Your task to perform on an android device: Show the shopping cart on walmart.com. Add usb-a to the cart on walmart.com, then select checkout. Image 0: 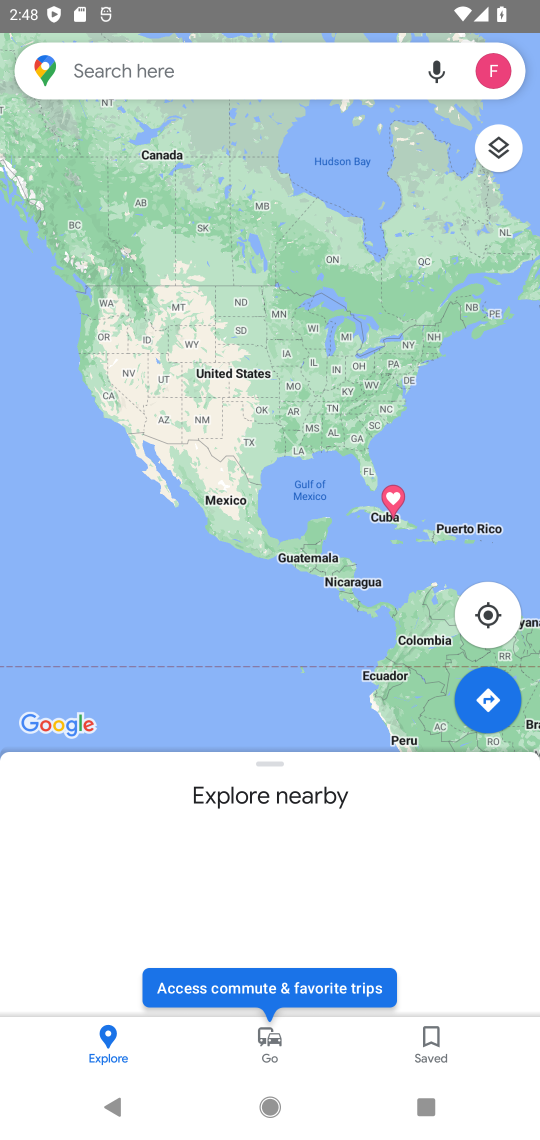
Step 0: press home button
Your task to perform on an android device: Show the shopping cart on walmart.com. Add usb-a to the cart on walmart.com, then select checkout. Image 1: 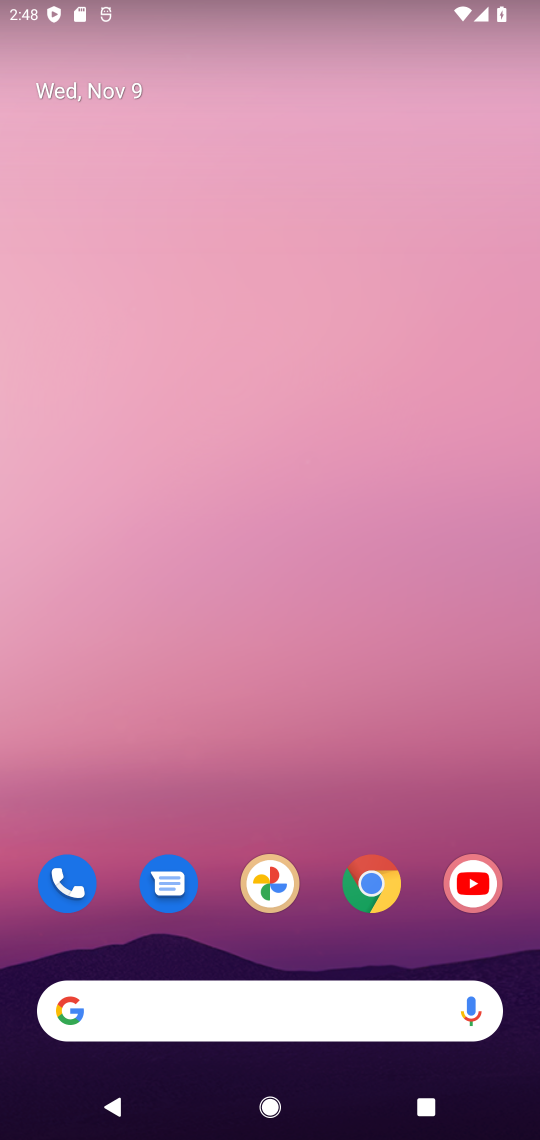
Step 1: click (370, 900)
Your task to perform on an android device: Show the shopping cart on walmart.com. Add usb-a to the cart on walmart.com, then select checkout. Image 2: 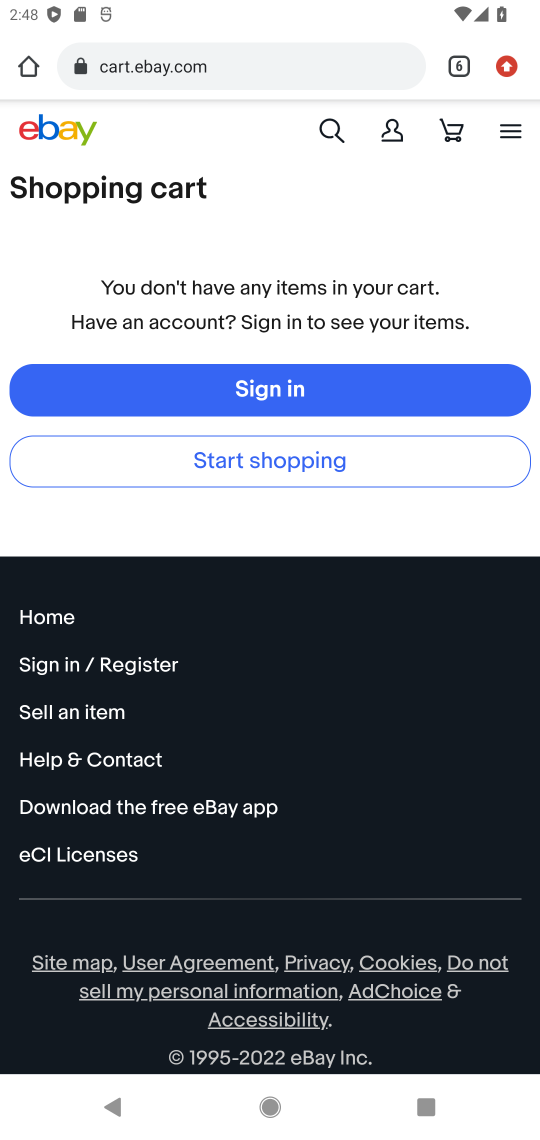
Step 2: click (457, 59)
Your task to perform on an android device: Show the shopping cart on walmart.com. Add usb-a to the cart on walmart.com, then select checkout. Image 3: 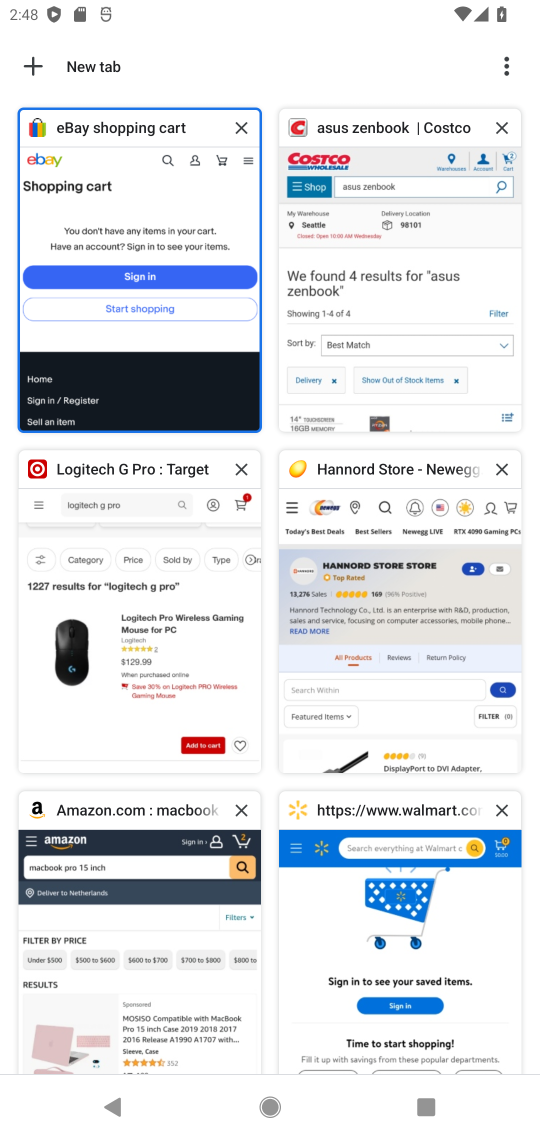
Step 3: click (361, 846)
Your task to perform on an android device: Show the shopping cart on walmart.com. Add usb-a to the cart on walmart.com, then select checkout. Image 4: 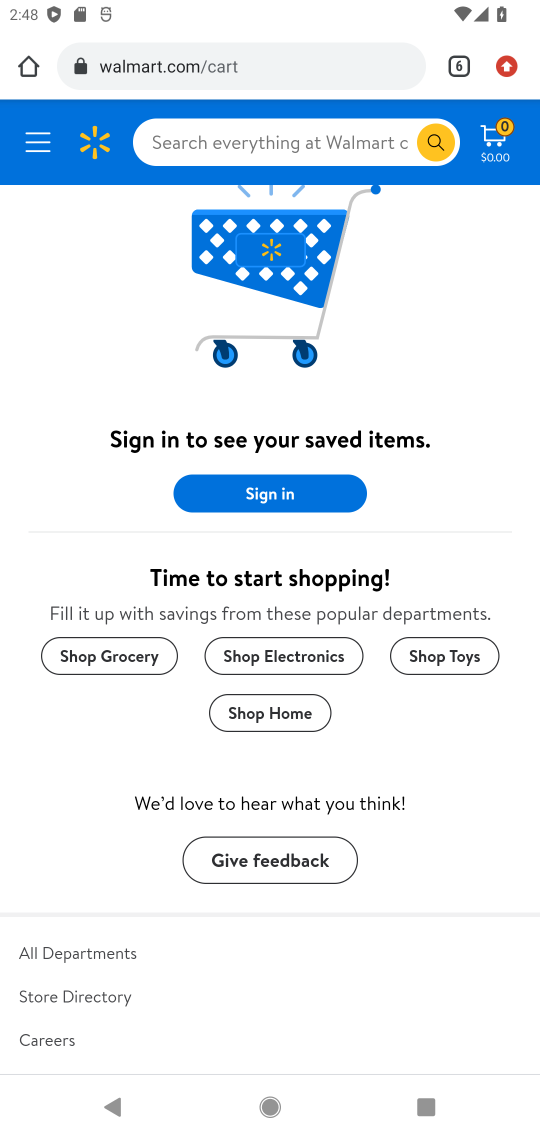
Step 4: click (312, 159)
Your task to perform on an android device: Show the shopping cart on walmart.com. Add usb-a to the cart on walmart.com, then select checkout. Image 5: 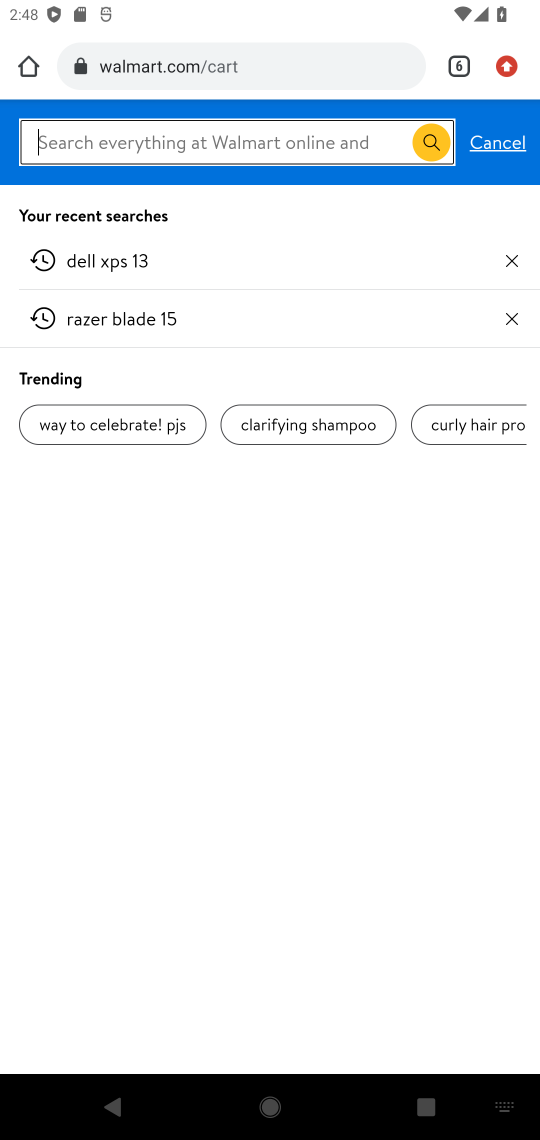
Step 5: type "usb-a"
Your task to perform on an android device: Show the shopping cart on walmart.com. Add usb-a to the cart on walmart.com, then select checkout. Image 6: 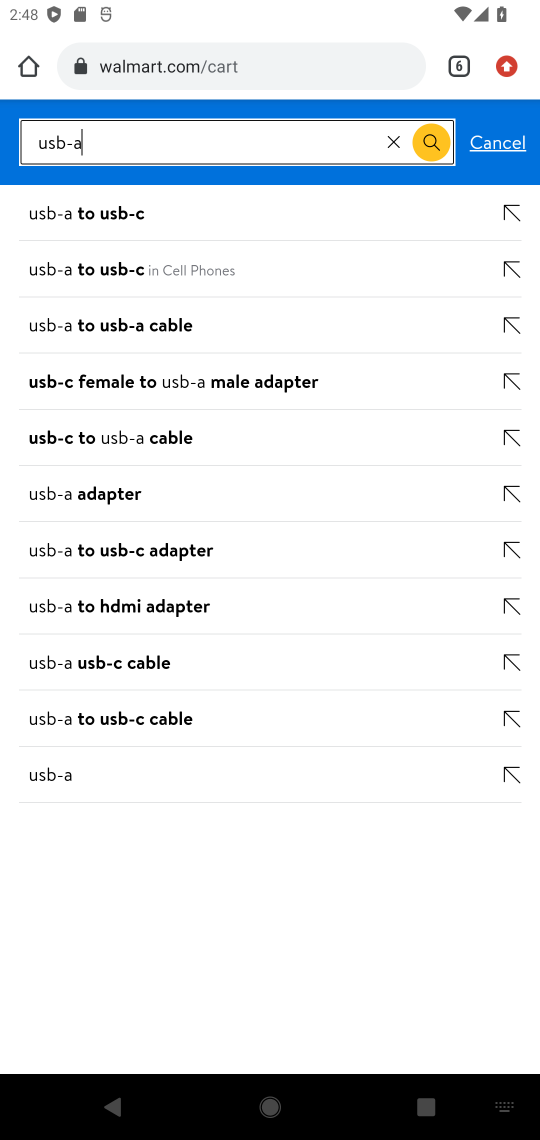
Step 6: click (45, 776)
Your task to perform on an android device: Show the shopping cart on walmart.com. Add usb-a to the cart on walmart.com, then select checkout. Image 7: 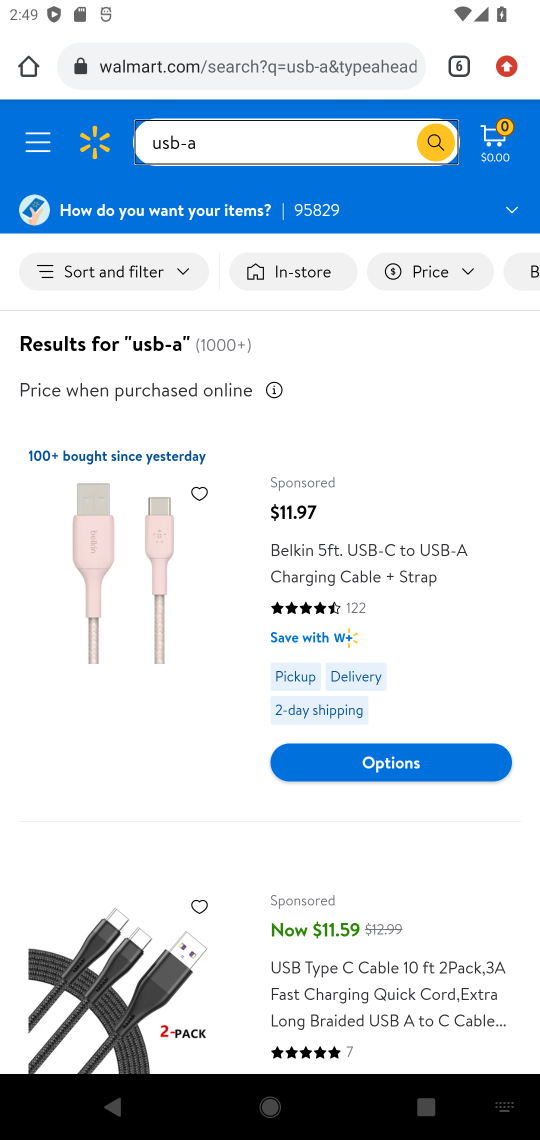
Step 7: drag from (363, 850) to (328, 122)
Your task to perform on an android device: Show the shopping cart on walmart.com. Add usb-a to the cart on walmart.com, then select checkout. Image 8: 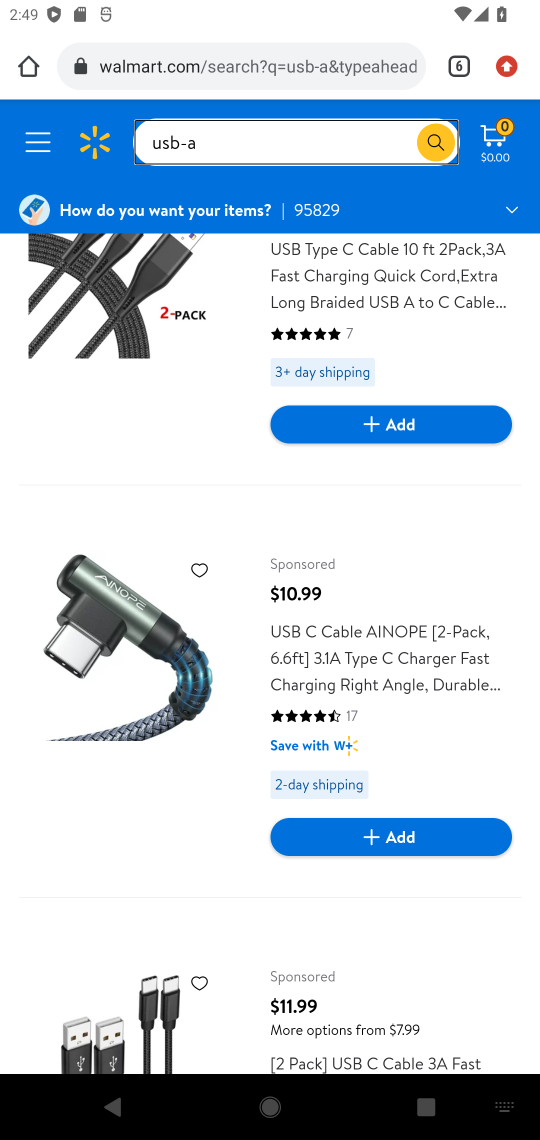
Step 8: drag from (222, 950) to (287, 256)
Your task to perform on an android device: Show the shopping cart on walmart.com. Add usb-a to the cart on walmart.com, then select checkout. Image 9: 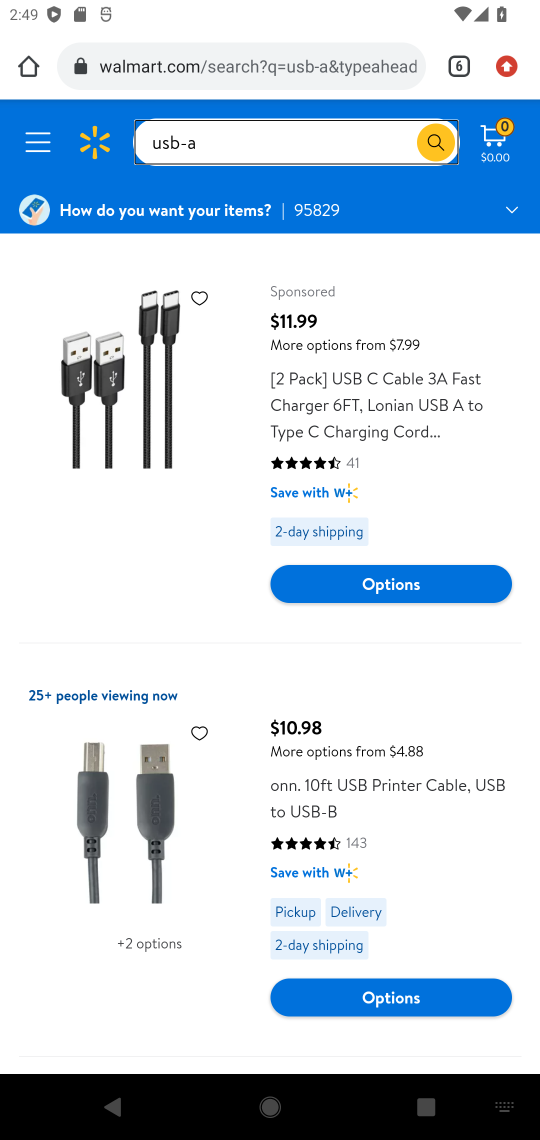
Step 9: drag from (254, 835) to (258, 295)
Your task to perform on an android device: Show the shopping cart on walmart.com. Add usb-a to the cart on walmart.com, then select checkout. Image 10: 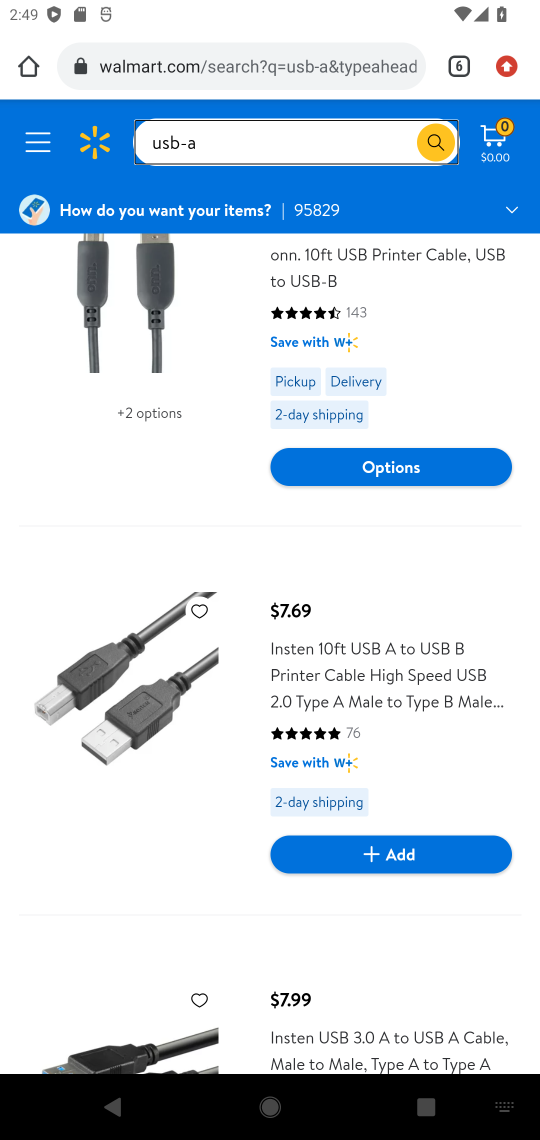
Step 10: drag from (236, 1006) to (233, 558)
Your task to perform on an android device: Show the shopping cart on walmart.com. Add usb-a to the cart on walmart.com, then select checkout. Image 11: 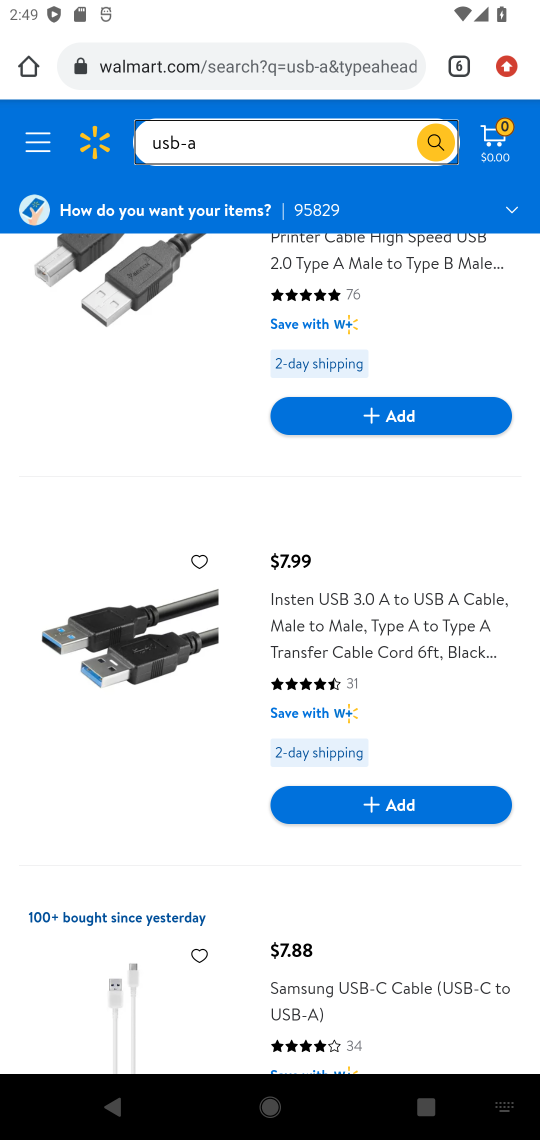
Step 11: click (414, 804)
Your task to perform on an android device: Show the shopping cart on walmart.com. Add usb-a to the cart on walmart.com, then select checkout. Image 12: 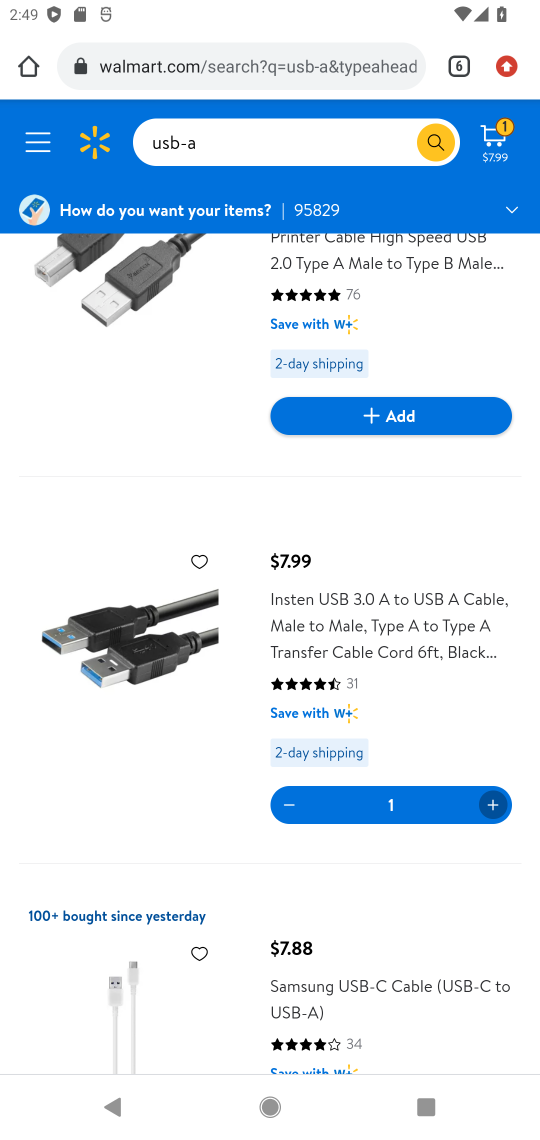
Step 12: click (488, 144)
Your task to perform on an android device: Show the shopping cart on walmart.com. Add usb-a to the cart on walmart.com, then select checkout. Image 13: 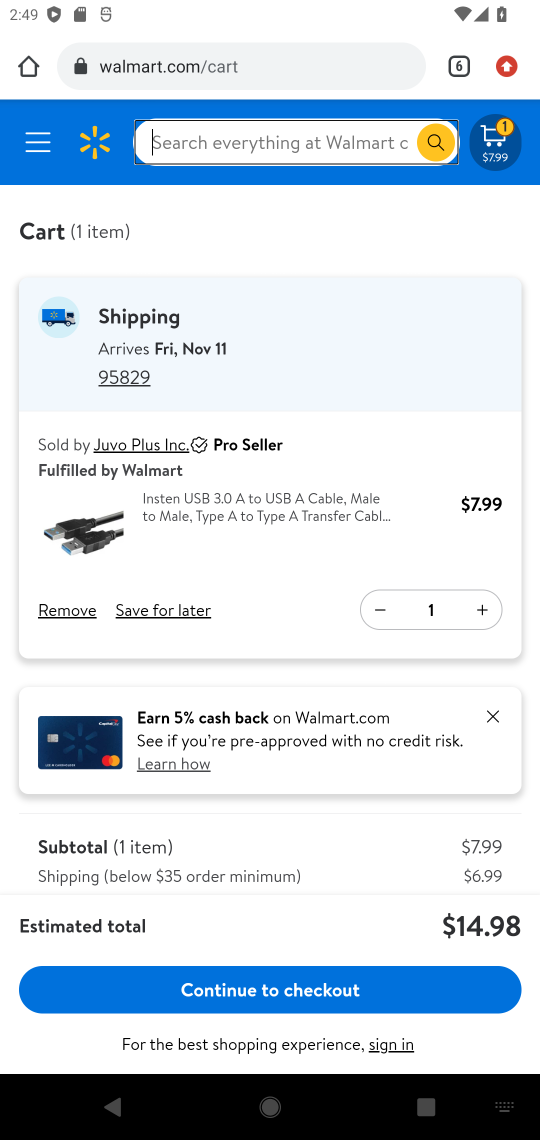
Step 13: click (313, 990)
Your task to perform on an android device: Show the shopping cart on walmart.com. Add usb-a to the cart on walmart.com, then select checkout. Image 14: 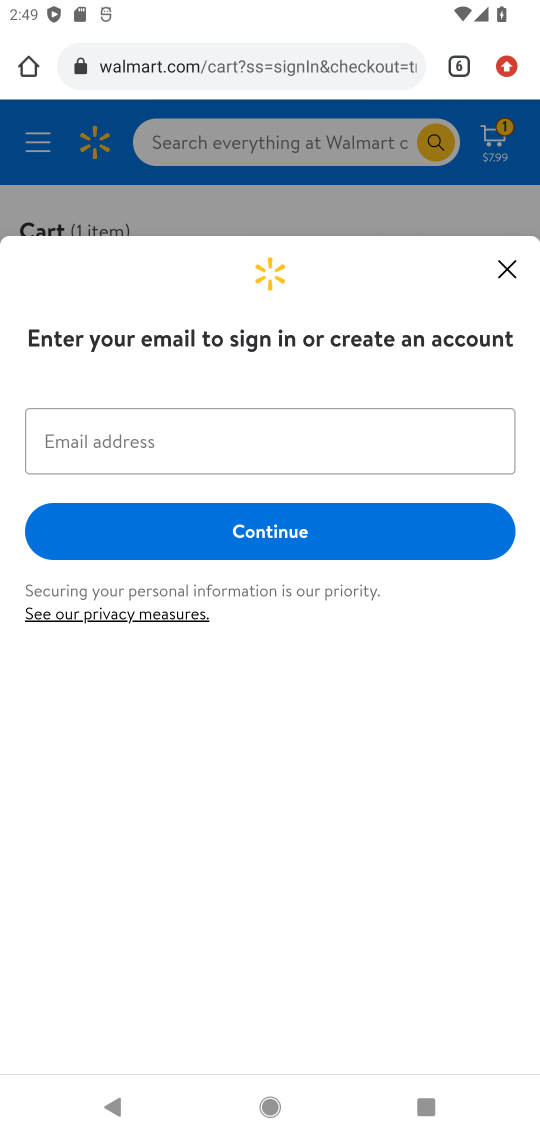
Step 14: task complete